Your task to perform on an android device: turn on the 12-hour format for clock Image 0: 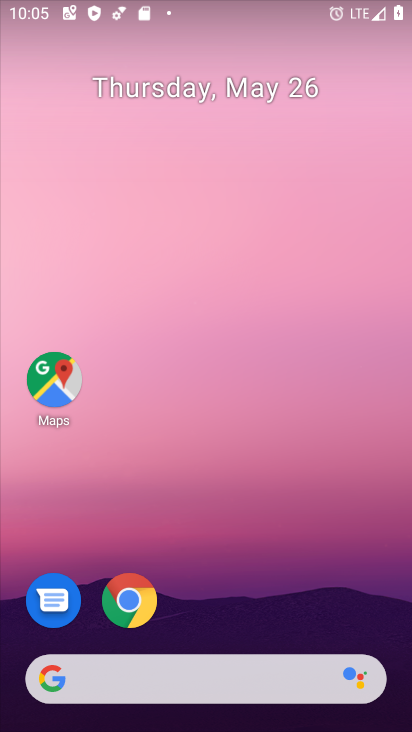
Step 0: drag from (266, 385) to (224, 112)
Your task to perform on an android device: turn on the 12-hour format for clock Image 1: 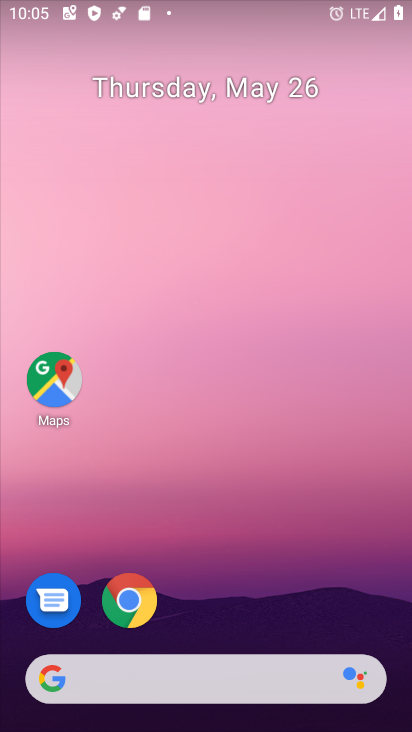
Step 1: drag from (228, 393) to (202, 30)
Your task to perform on an android device: turn on the 12-hour format for clock Image 2: 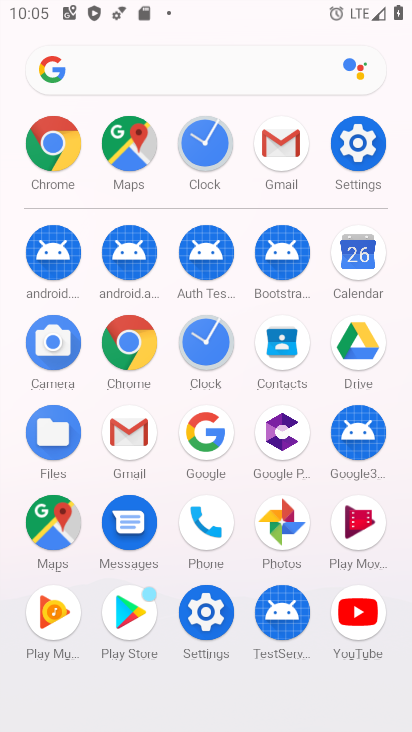
Step 2: click (208, 133)
Your task to perform on an android device: turn on the 12-hour format for clock Image 3: 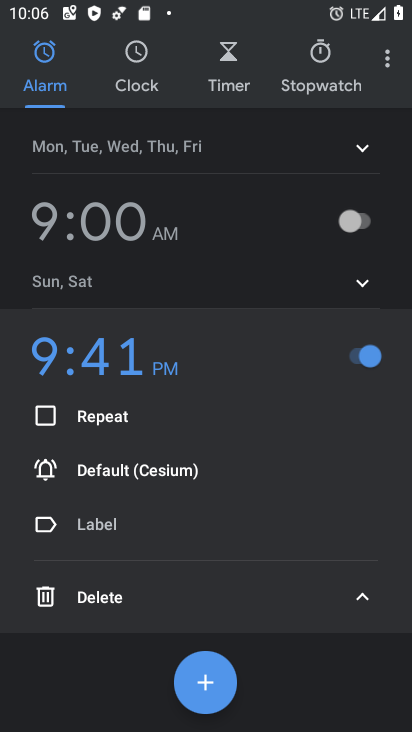
Step 3: click (390, 62)
Your task to perform on an android device: turn on the 12-hour format for clock Image 4: 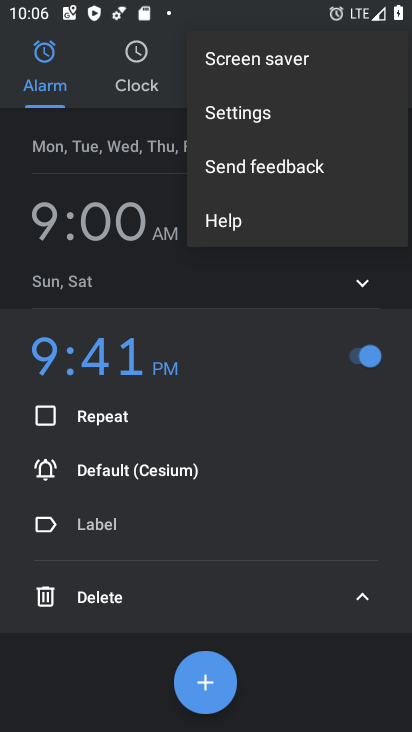
Step 4: click (250, 112)
Your task to perform on an android device: turn on the 12-hour format for clock Image 5: 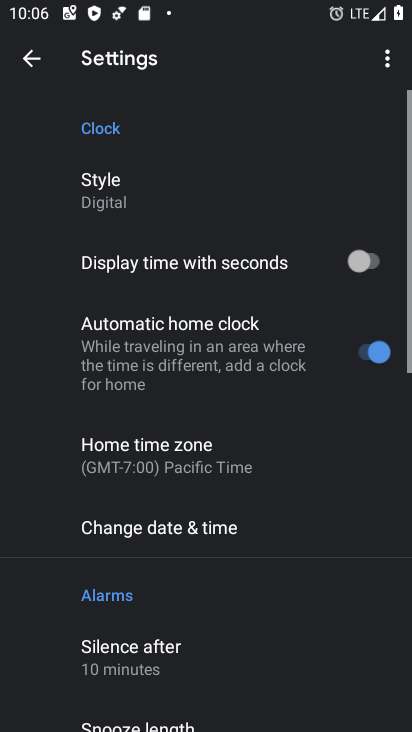
Step 5: drag from (227, 505) to (304, 123)
Your task to perform on an android device: turn on the 12-hour format for clock Image 6: 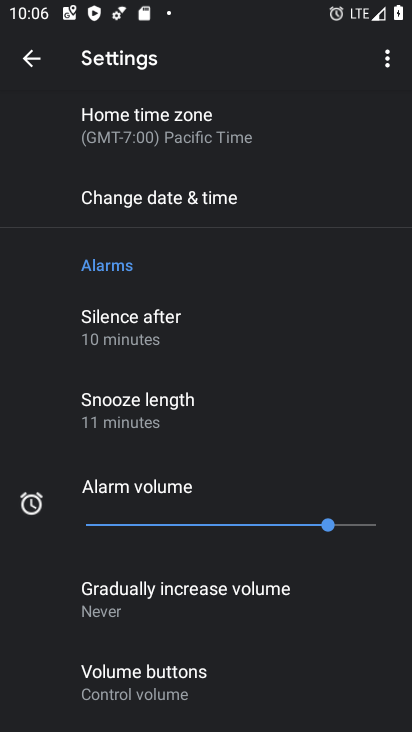
Step 6: click (161, 205)
Your task to perform on an android device: turn on the 12-hour format for clock Image 7: 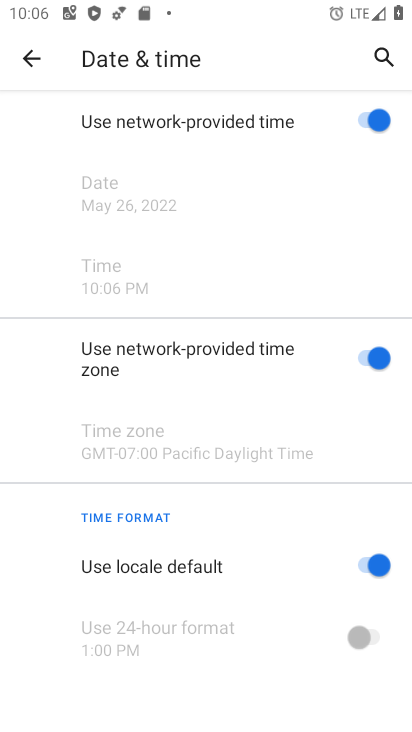
Step 7: task complete